Your task to perform on an android device: Open Google Chrome and open the bookmarks view Image 0: 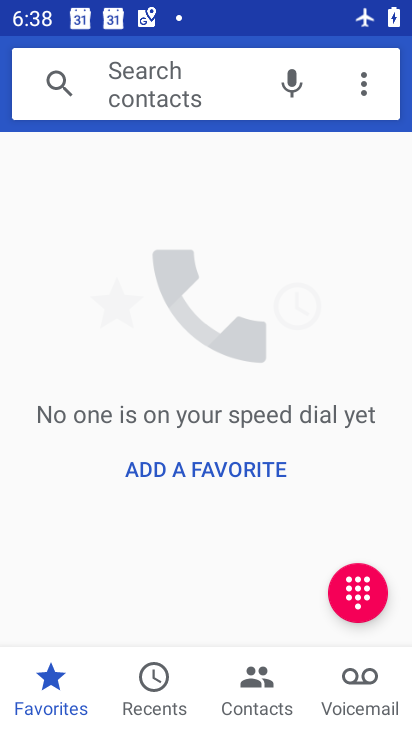
Step 0: press home button
Your task to perform on an android device: Open Google Chrome and open the bookmarks view Image 1: 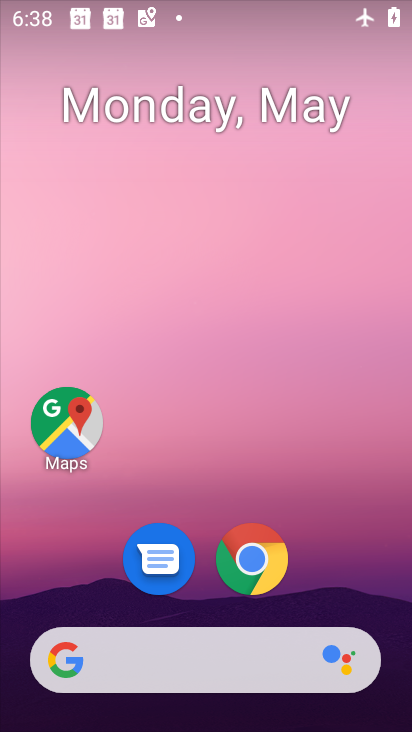
Step 1: drag from (366, 610) to (282, 28)
Your task to perform on an android device: Open Google Chrome and open the bookmarks view Image 2: 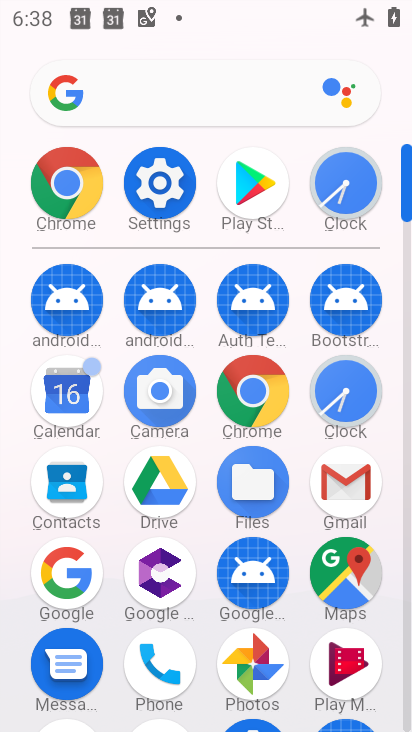
Step 2: click (58, 173)
Your task to perform on an android device: Open Google Chrome and open the bookmarks view Image 3: 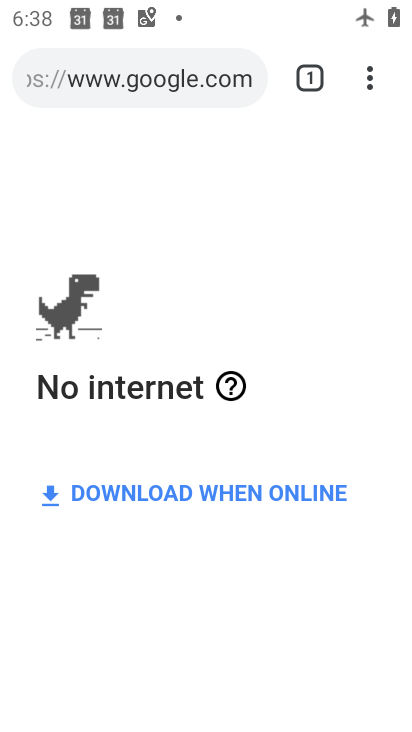
Step 3: click (378, 73)
Your task to perform on an android device: Open Google Chrome and open the bookmarks view Image 4: 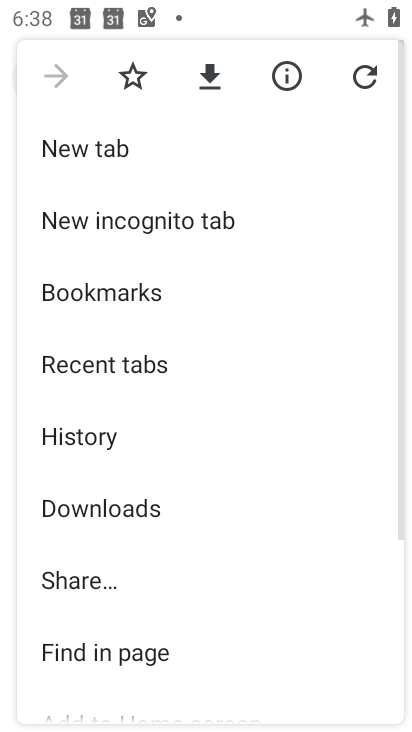
Step 4: click (173, 293)
Your task to perform on an android device: Open Google Chrome and open the bookmarks view Image 5: 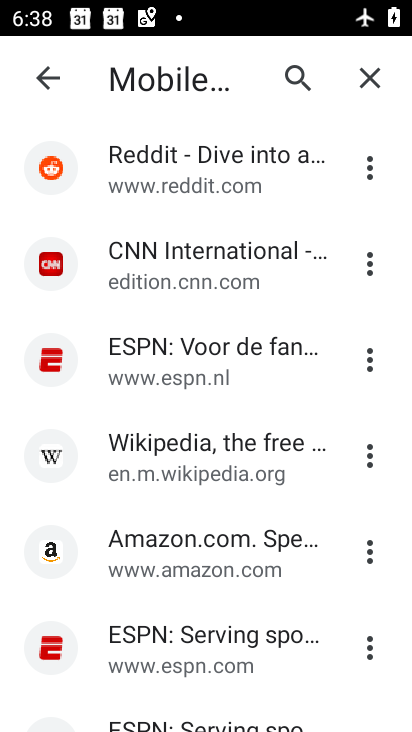
Step 5: task complete